Your task to perform on an android device: What's the weather going to be tomorrow? Image 0: 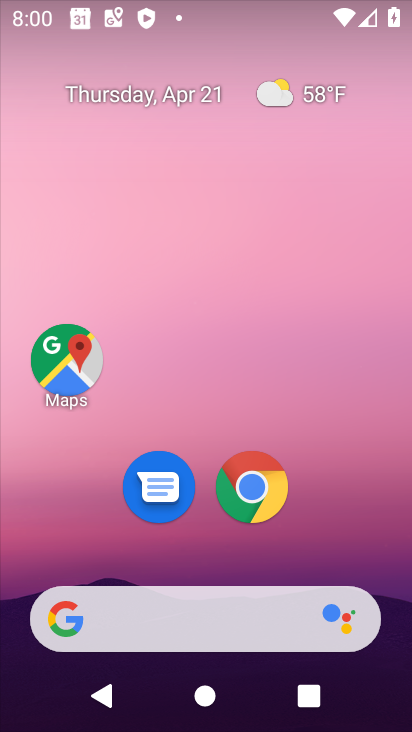
Step 0: drag from (398, 674) to (263, 37)
Your task to perform on an android device: What's the weather going to be tomorrow? Image 1: 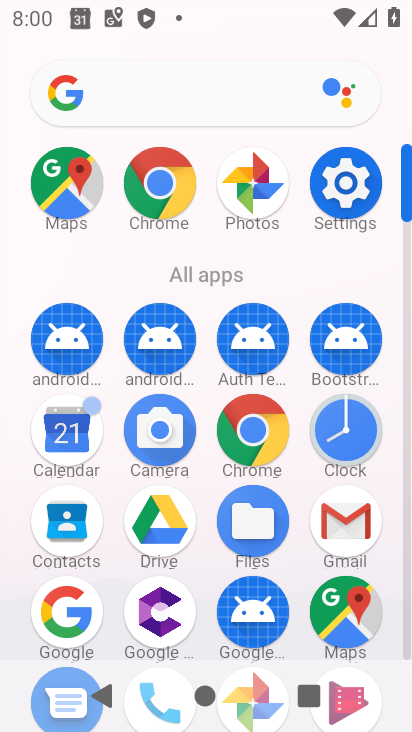
Step 1: drag from (0, 587) to (0, 339)
Your task to perform on an android device: What's the weather going to be tomorrow? Image 2: 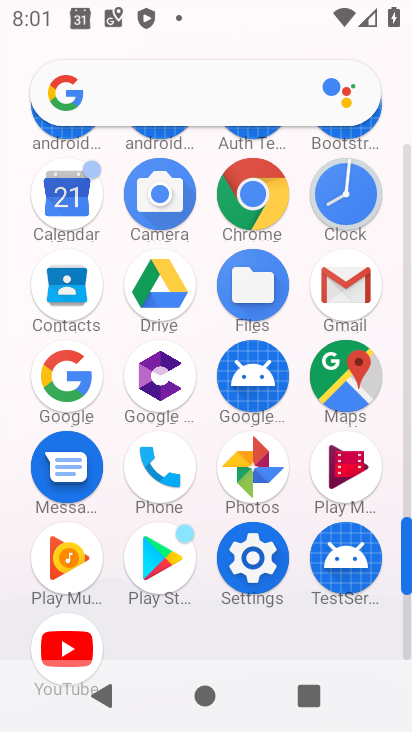
Step 2: click (183, 89)
Your task to perform on an android device: What's the weather going to be tomorrow? Image 3: 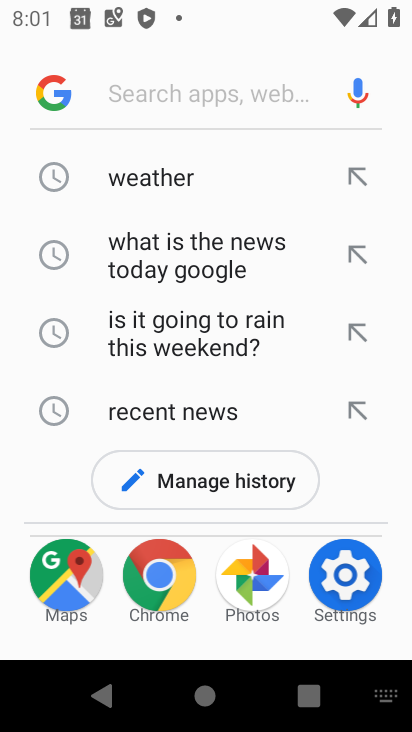
Step 3: click (180, 180)
Your task to perform on an android device: What's the weather going to be tomorrow? Image 4: 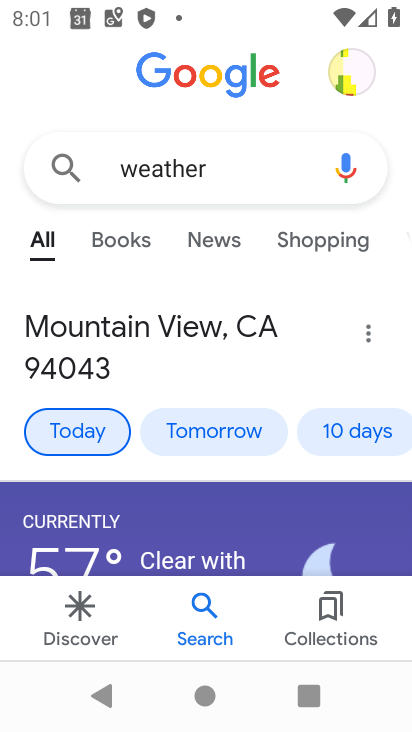
Step 4: click (188, 434)
Your task to perform on an android device: What's the weather going to be tomorrow? Image 5: 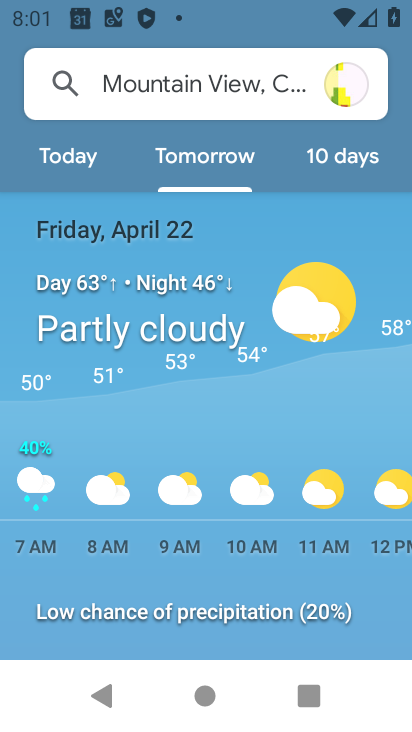
Step 5: task complete